Your task to perform on an android device: turn off location history Image 0: 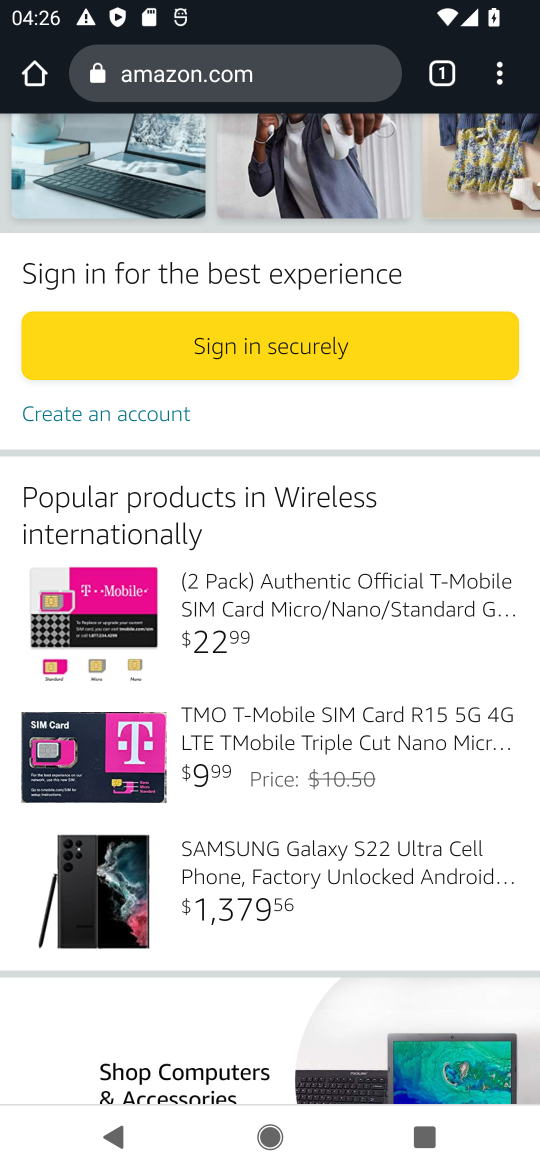
Step 0: press home button
Your task to perform on an android device: turn off location history Image 1: 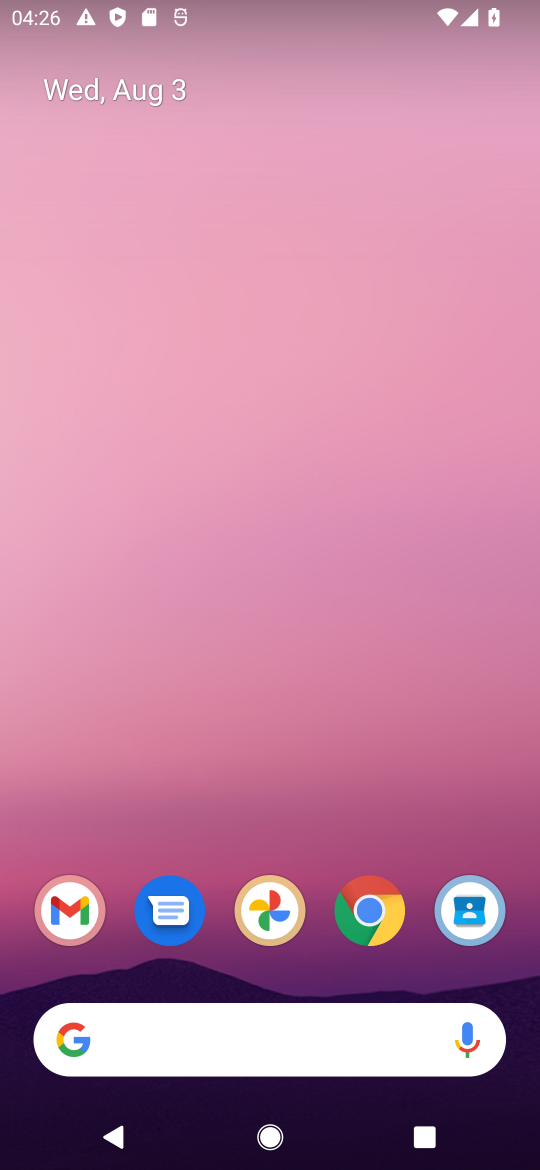
Step 1: drag from (298, 815) to (295, 24)
Your task to perform on an android device: turn off location history Image 2: 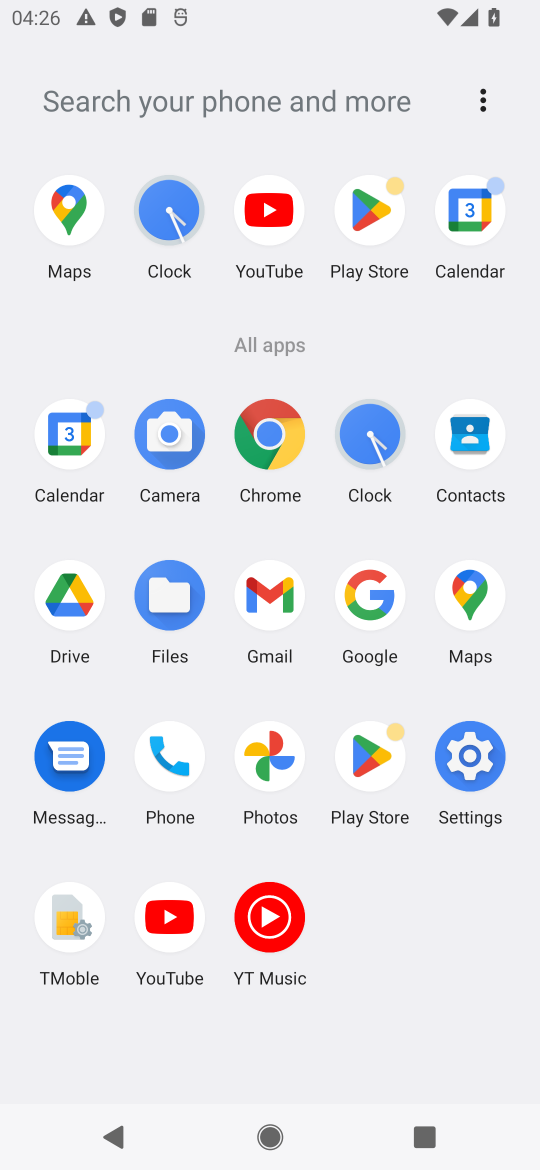
Step 2: click (469, 745)
Your task to perform on an android device: turn off location history Image 3: 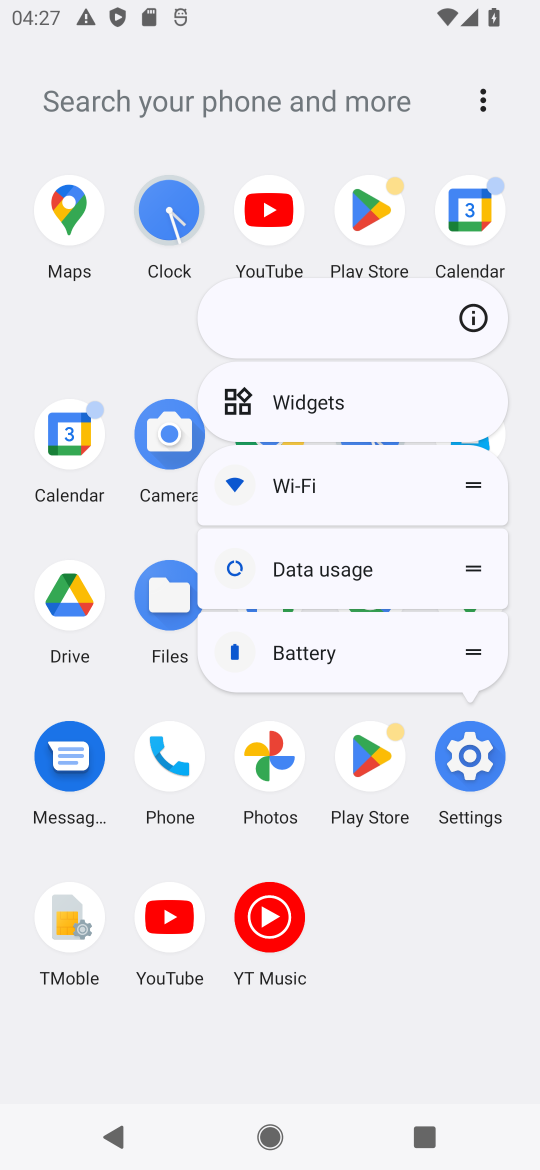
Step 3: click (465, 747)
Your task to perform on an android device: turn off location history Image 4: 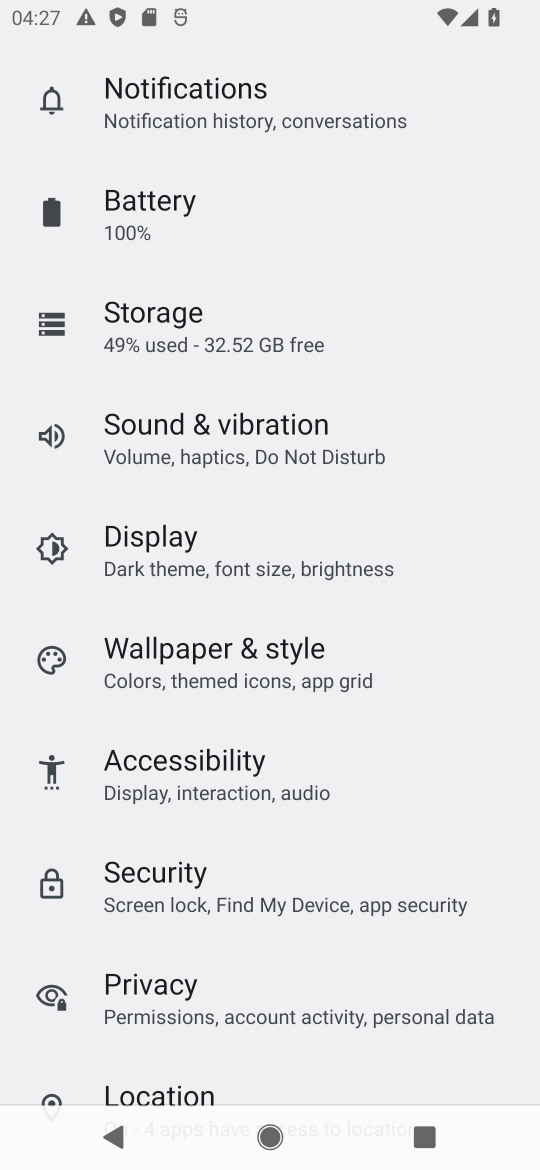
Step 4: click (250, 1078)
Your task to perform on an android device: turn off location history Image 5: 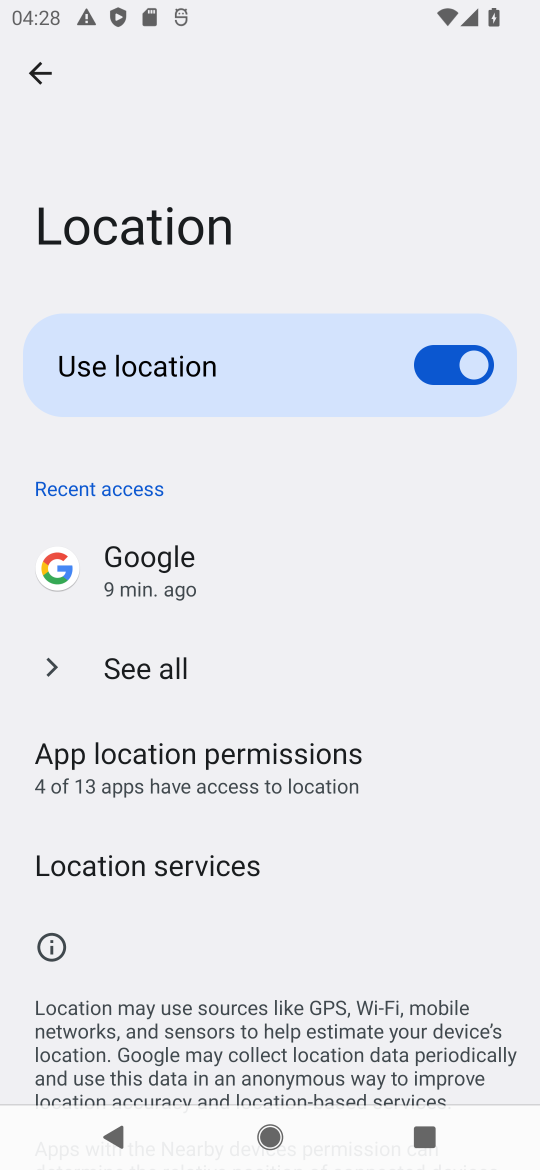
Step 5: click (136, 873)
Your task to perform on an android device: turn off location history Image 6: 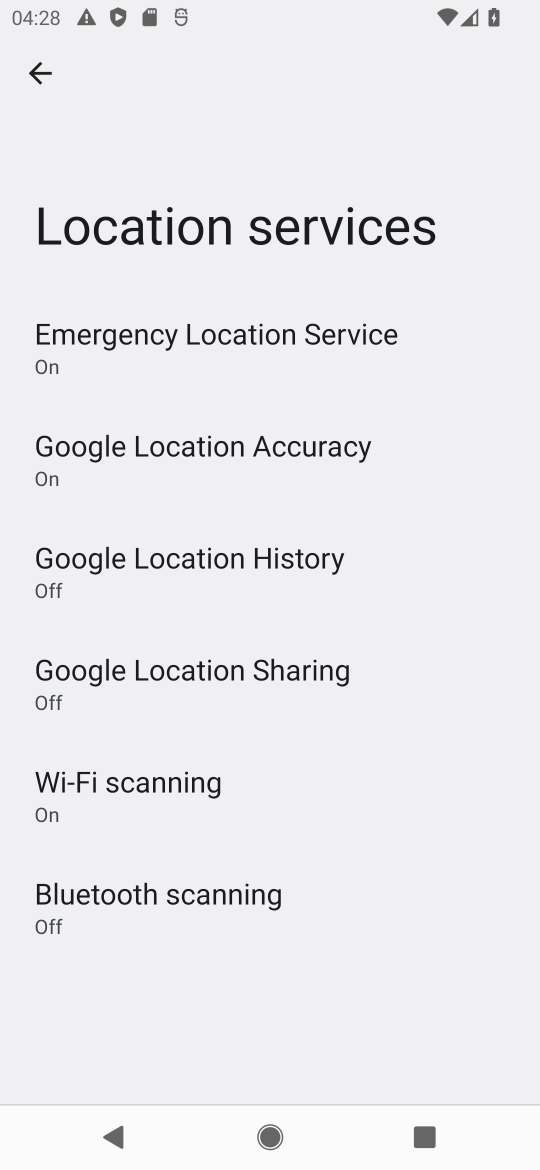
Step 6: click (196, 560)
Your task to perform on an android device: turn off location history Image 7: 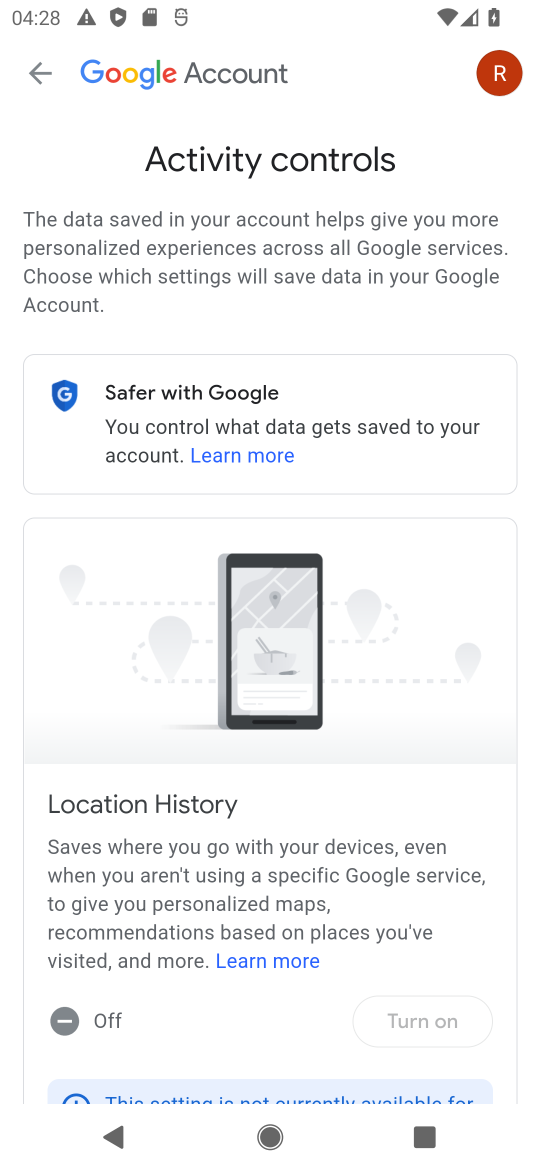
Step 7: task complete